Your task to perform on an android device: turn notification dots off Image 0: 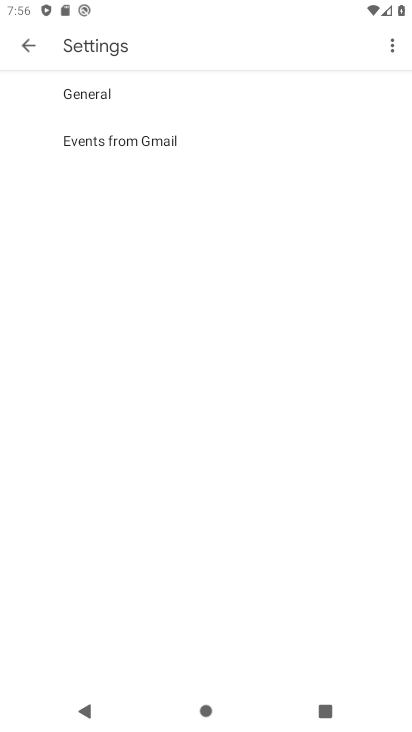
Step 0: press home button
Your task to perform on an android device: turn notification dots off Image 1: 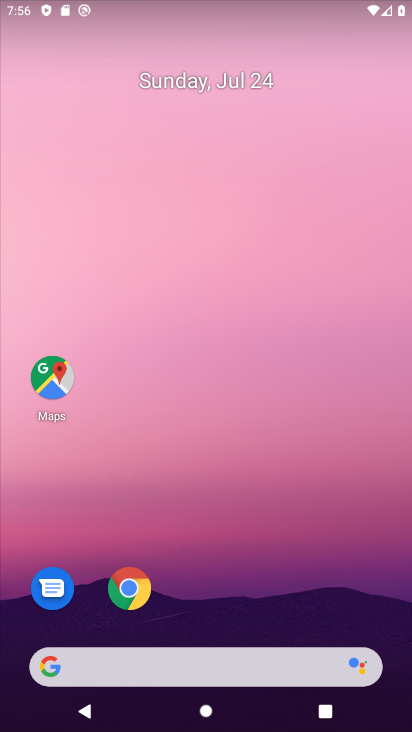
Step 1: drag from (379, 445) to (336, 275)
Your task to perform on an android device: turn notification dots off Image 2: 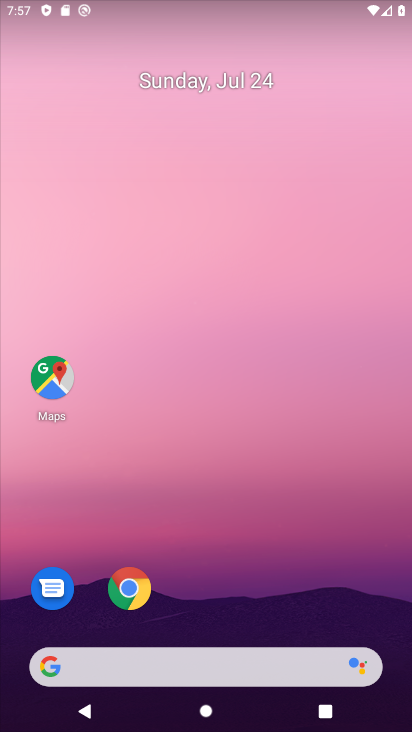
Step 2: drag from (390, 346) to (346, 63)
Your task to perform on an android device: turn notification dots off Image 3: 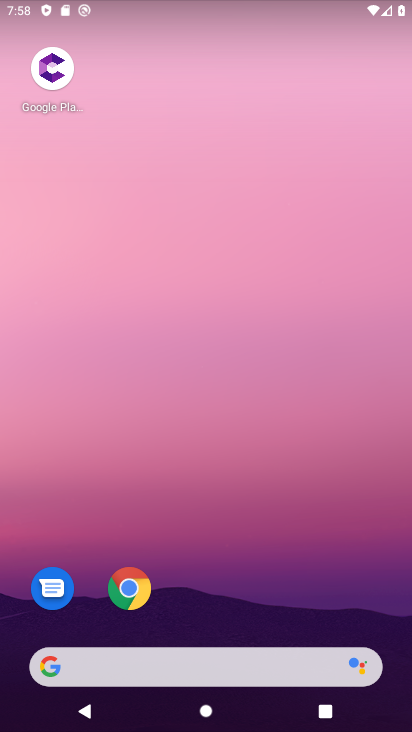
Step 3: drag from (236, 638) to (266, 110)
Your task to perform on an android device: turn notification dots off Image 4: 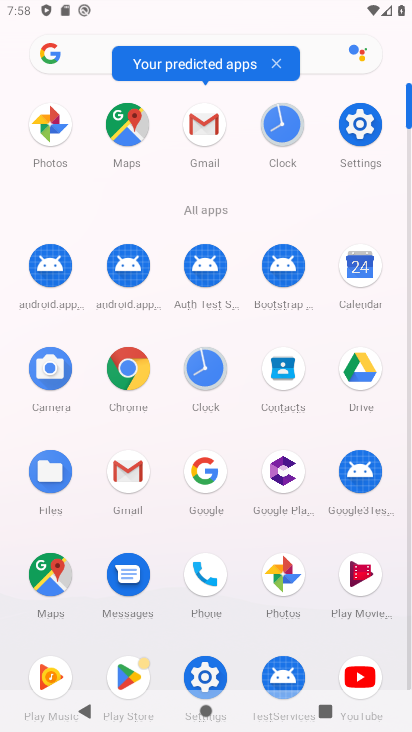
Step 4: click (359, 127)
Your task to perform on an android device: turn notification dots off Image 5: 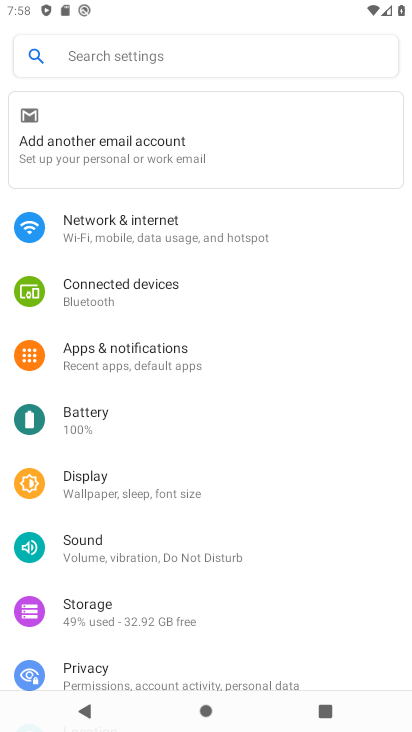
Step 5: drag from (216, 597) to (209, 212)
Your task to perform on an android device: turn notification dots off Image 6: 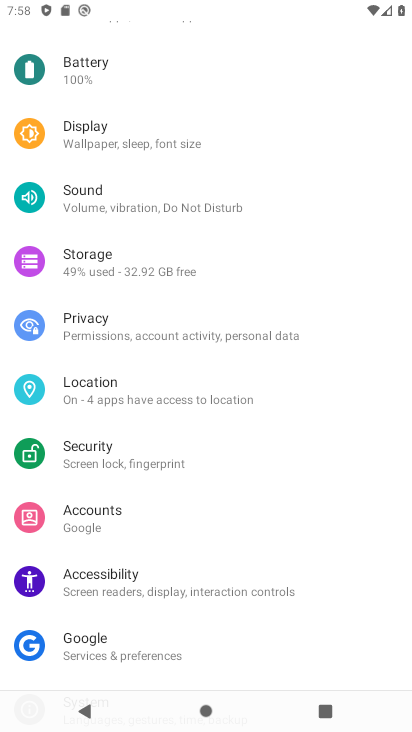
Step 6: drag from (186, 190) to (181, 385)
Your task to perform on an android device: turn notification dots off Image 7: 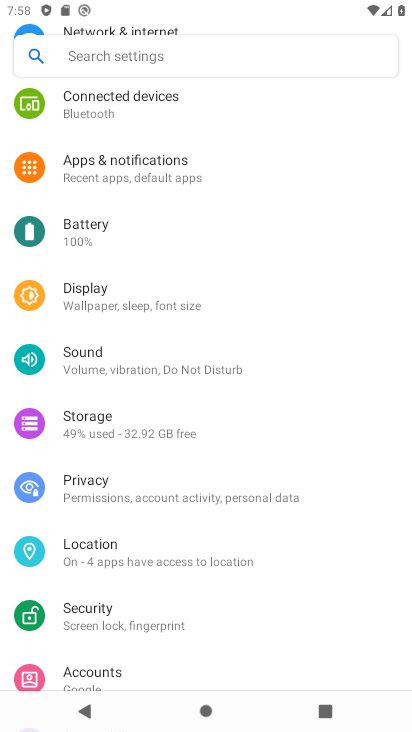
Step 7: click (165, 196)
Your task to perform on an android device: turn notification dots off Image 8: 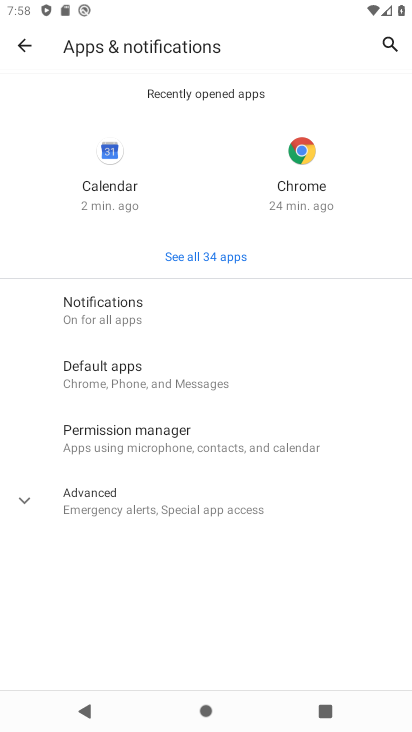
Step 8: click (297, 309)
Your task to perform on an android device: turn notification dots off Image 9: 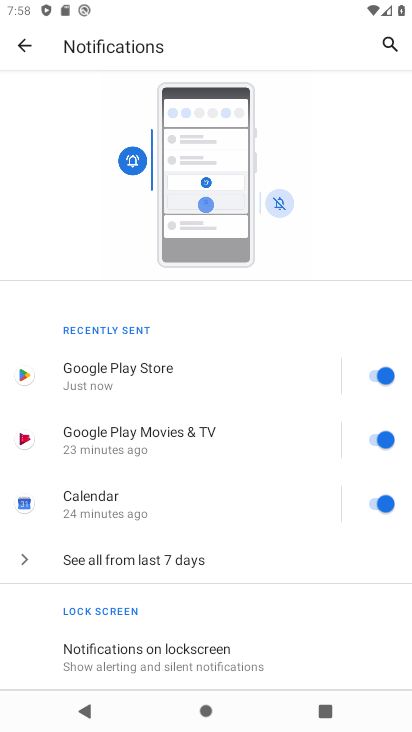
Step 9: drag from (327, 619) to (279, 263)
Your task to perform on an android device: turn notification dots off Image 10: 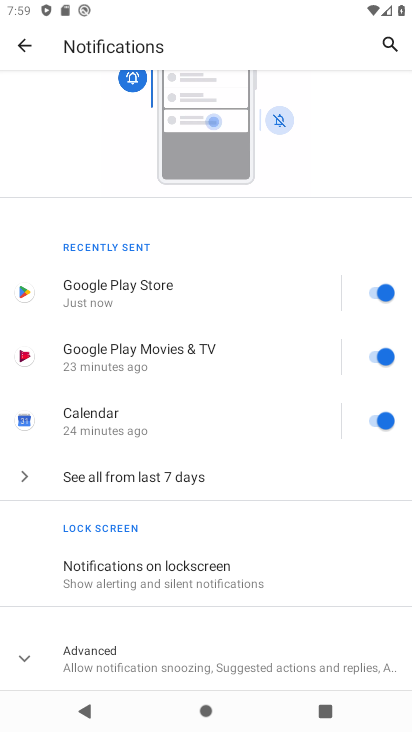
Step 10: drag from (231, 538) to (200, 178)
Your task to perform on an android device: turn notification dots off Image 11: 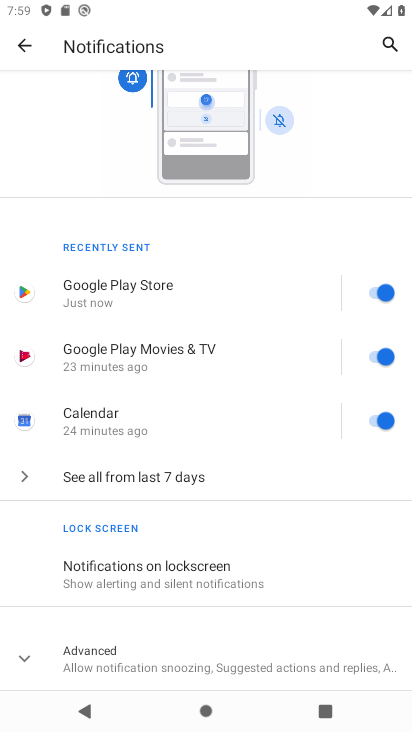
Step 11: click (240, 654)
Your task to perform on an android device: turn notification dots off Image 12: 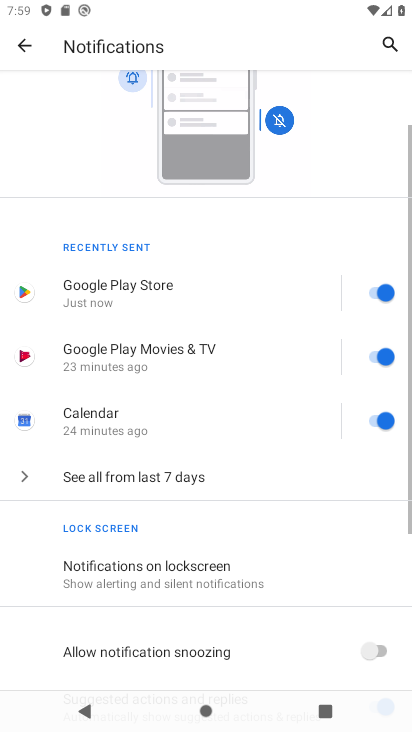
Step 12: drag from (244, 620) to (207, 286)
Your task to perform on an android device: turn notification dots off Image 13: 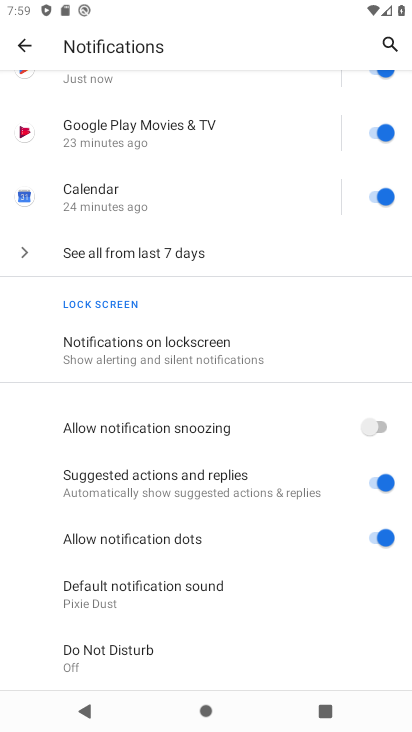
Step 13: click (379, 546)
Your task to perform on an android device: turn notification dots off Image 14: 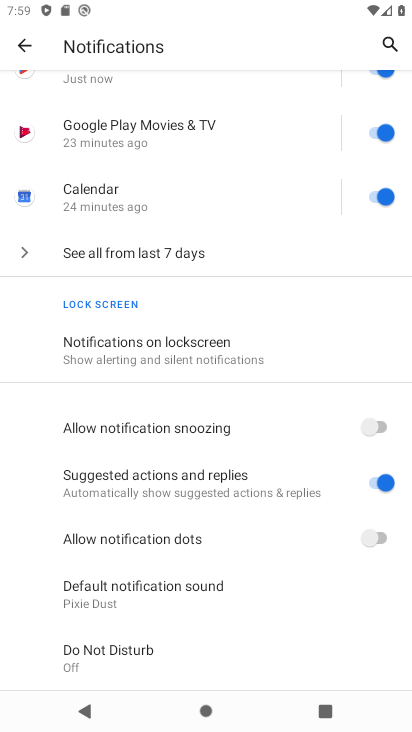
Step 14: task complete